Your task to perform on an android device: Toggle the flashlight Image 0: 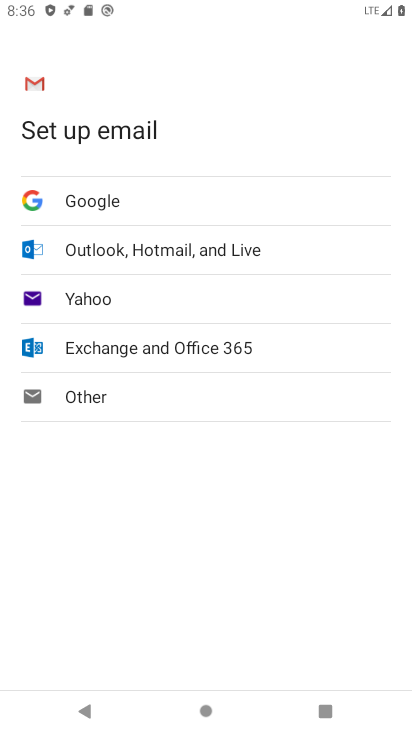
Step 0: press home button
Your task to perform on an android device: Toggle the flashlight Image 1: 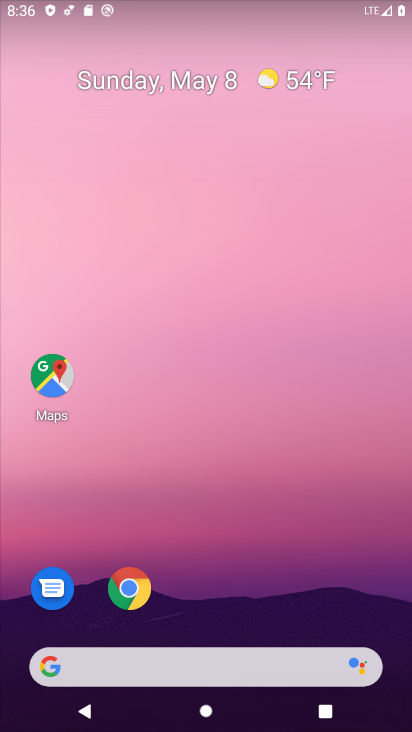
Step 1: drag from (7, 601) to (224, 172)
Your task to perform on an android device: Toggle the flashlight Image 2: 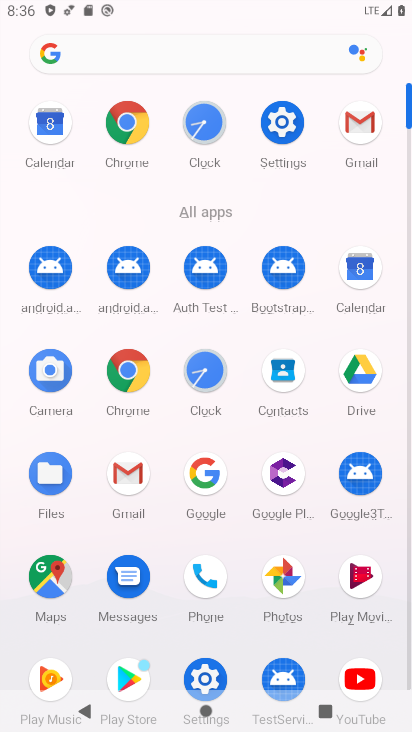
Step 2: click (284, 124)
Your task to perform on an android device: Toggle the flashlight Image 3: 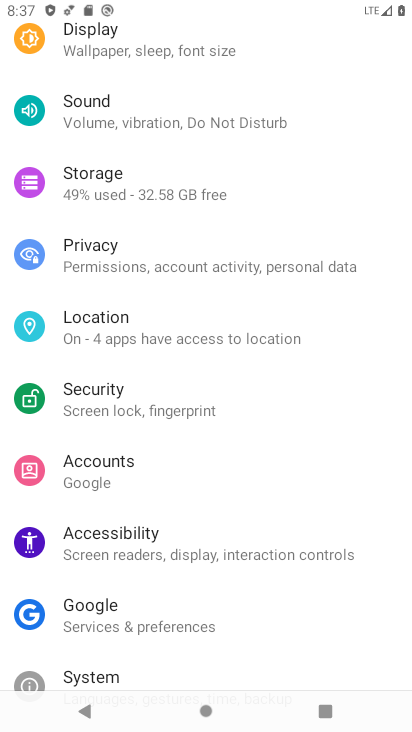
Step 3: drag from (204, 152) to (170, 572)
Your task to perform on an android device: Toggle the flashlight Image 4: 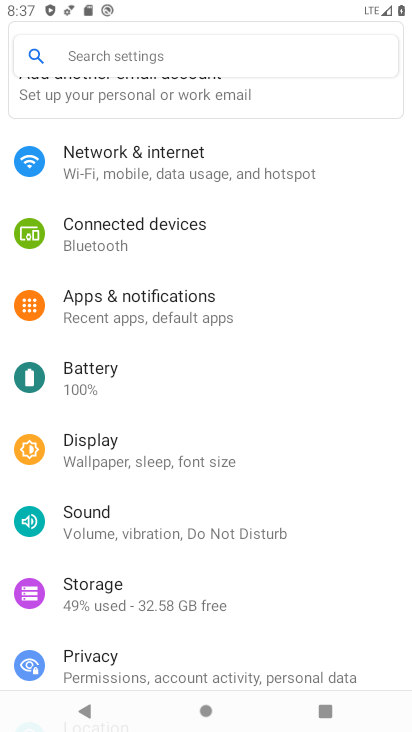
Step 4: click (149, 313)
Your task to perform on an android device: Toggle the flashlight Image 5: 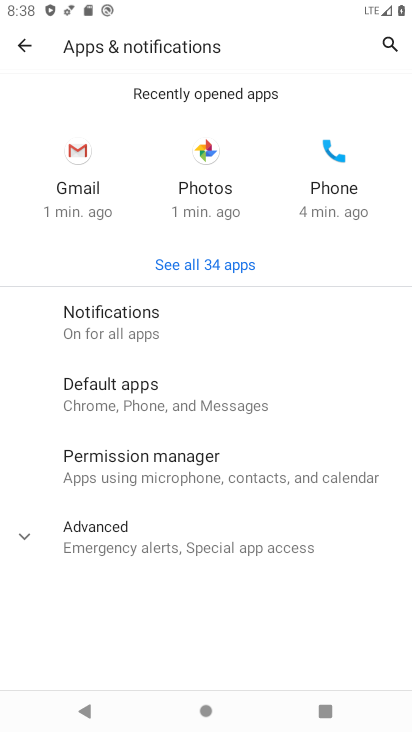
Step 5: task complete